Your task to perform on an android device: toggle airplane mode Image 0: 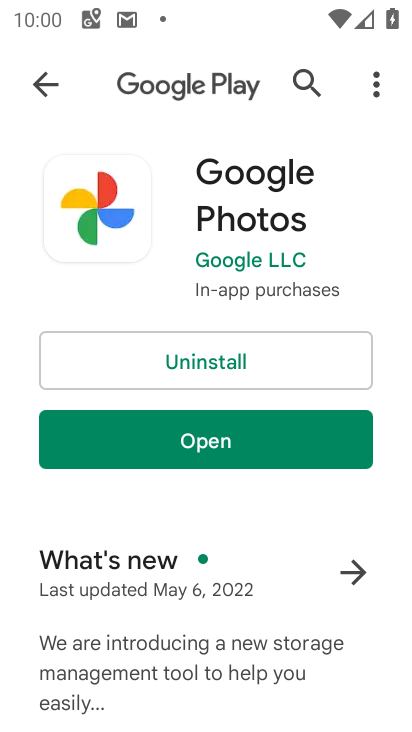
Step 0: press home button
Your task to perform on an android device: toggle airplane mode Image 1: 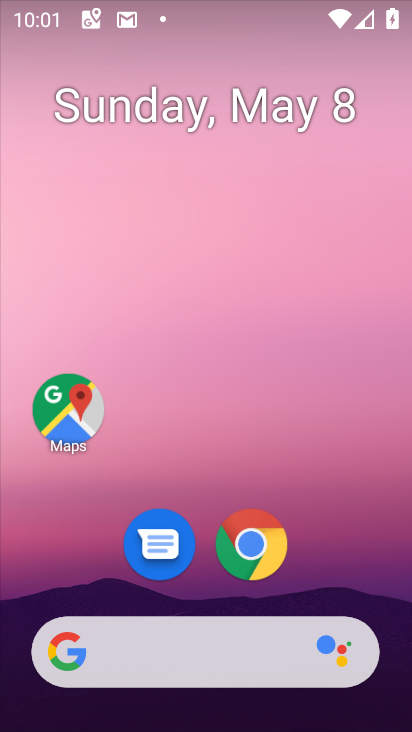
Step 1: drag from (324, 585) to (324, 90)
Your task to perform on an android device: toggle airplane mode Image 2: 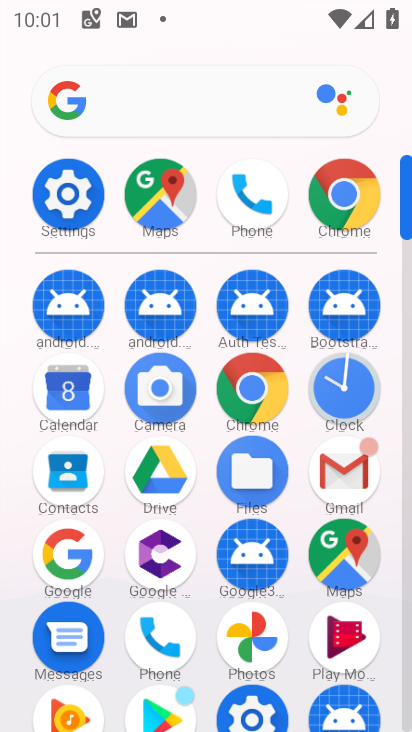
Step 2: click (48, 193)
Your task to perform on an android device: toggle airplane mode Image 3: 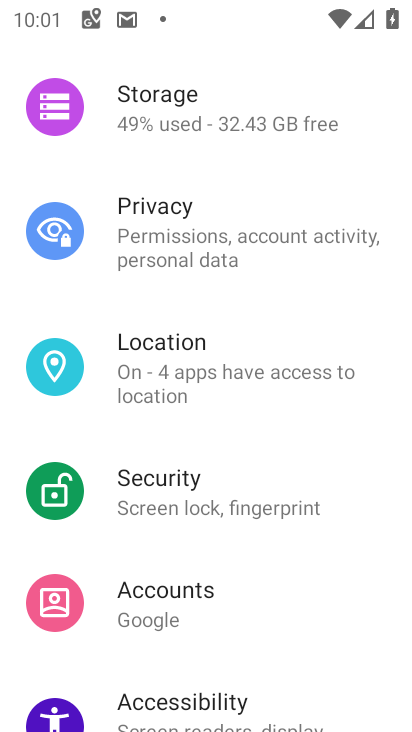
Step 3: drag from (182, 197) to (174, 619)
Your task to perform on an android device: toggle airplane mode Image 4: 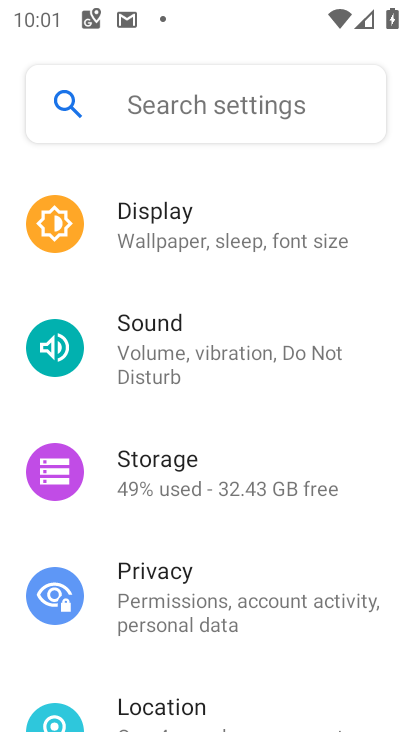
Step 4: drag from (236, 255) to (212, 663)
Your task to perform on an android device: toggle airplane mode Image 5: 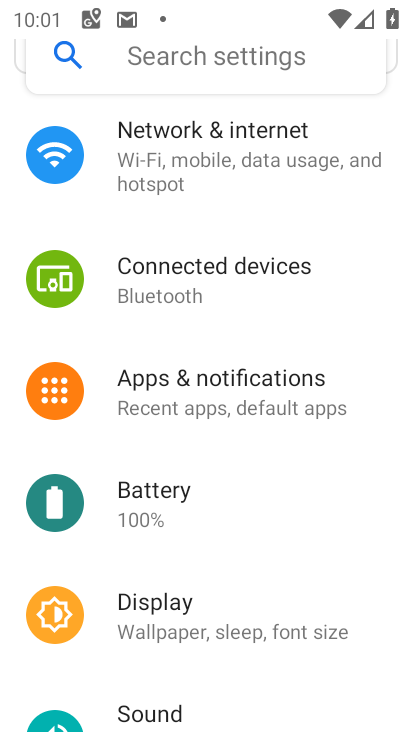
Step 5: drag from (232, 219) to (232, 462)
Your task to perform on an android device: toggle airplane mode Image 6: 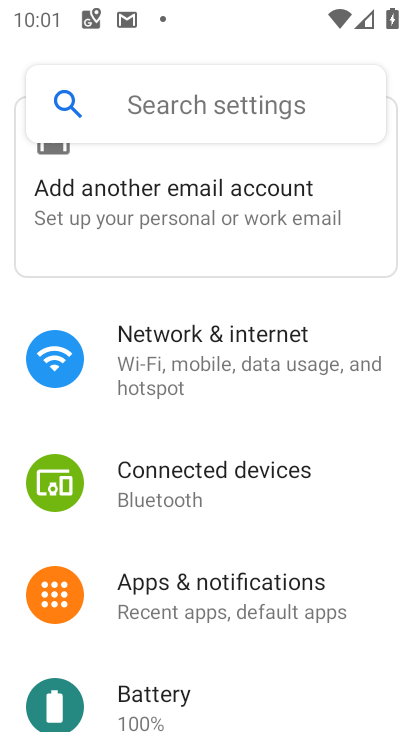
Step 6: click (238, 372)
Your task to perform on an android device: toggle airplane mode Image 7: 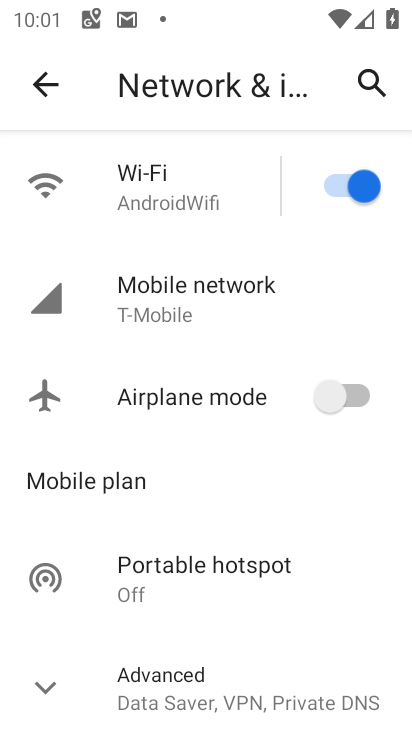
Step 7: task complete